Your task to perform on an android device: change your default location settings in chrome Image 0: 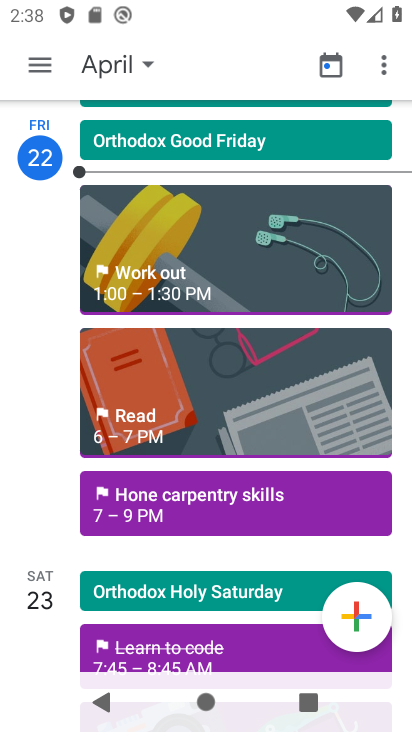
Step 0: press home button
Your task to perform on an android device: change your default location settings in chrome Image 1: 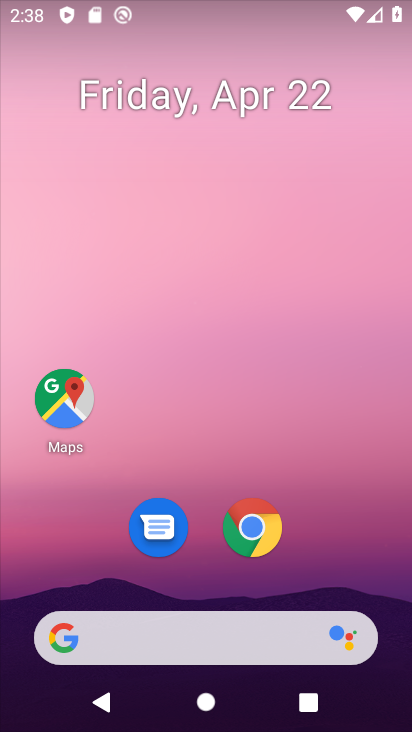
Step 1: drag from (389, 616) to (182, 56)
Your task to perform on an android device: change your default location settings in chrome Image 2: 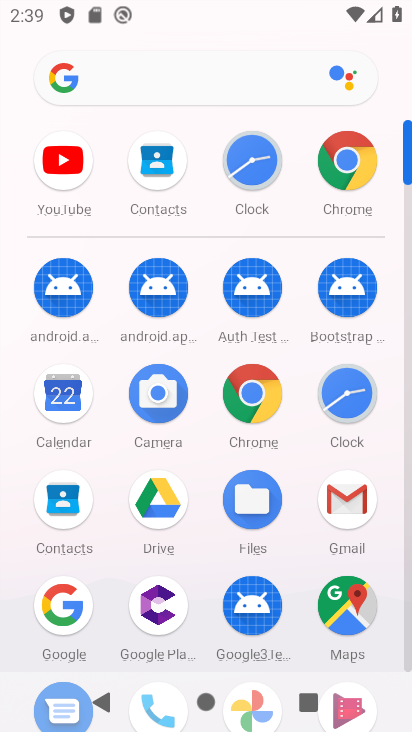
Step 2: click (264, 383)
Your task to perform on an android device: change your default location settings in chrome Image 3: 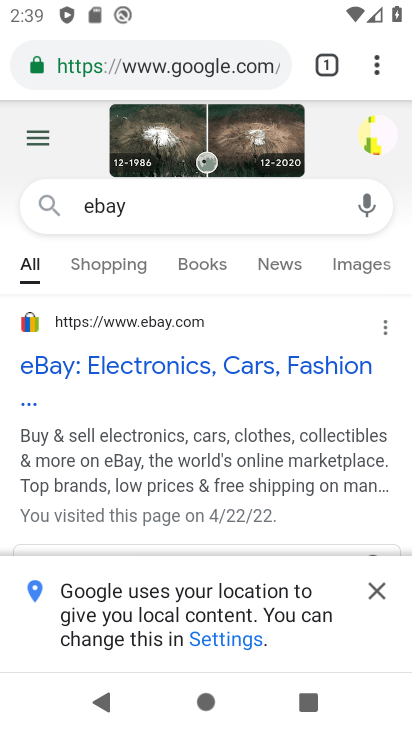
Step 3: press back button
Your task to perform on an android device: change your default location settings in chrome Image 4: 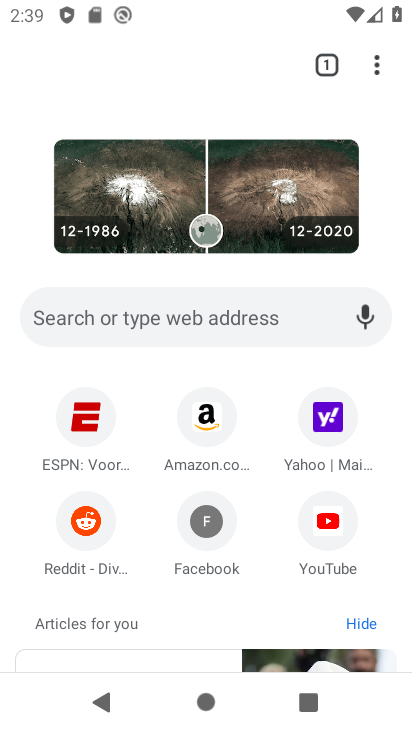
Step 4: click (372, 61)
Your task to perform on an android device: change your default location settings in chrome Image 5: 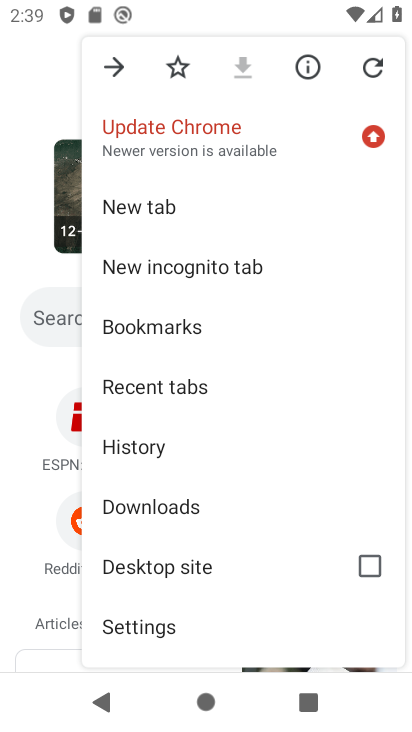
Step 5: click (167, 613)
Your task to perform on an android device: change your default location settings in chrome Image 6: 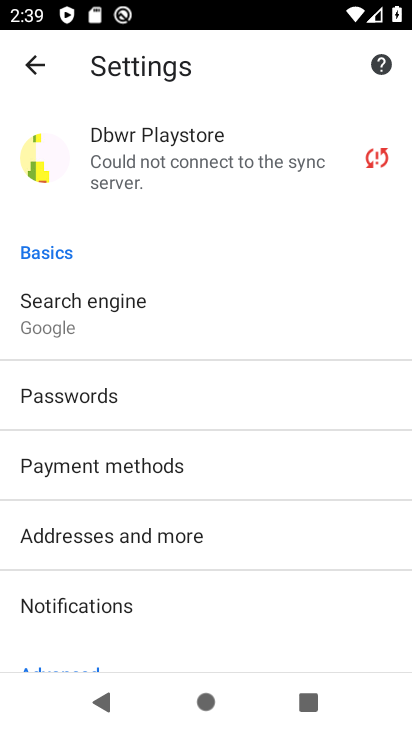
Step 6: click (257, 336)
Your task to perform on an android device: change your default location settings in chrome Image 7: 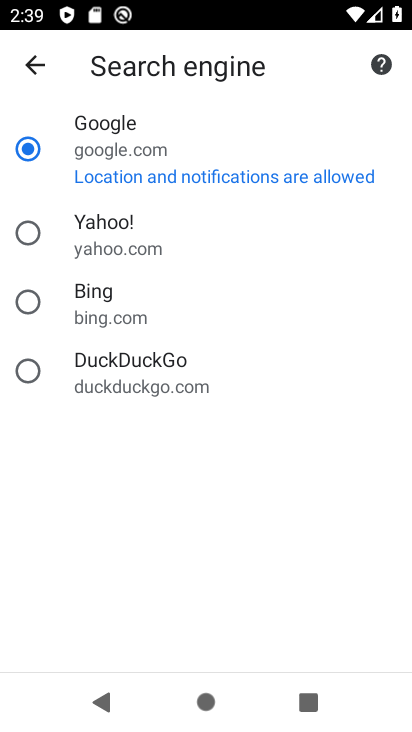
Step 7: click (271, 259)
Your task to perform on an android device: change your default location settings in chrome Image 8: 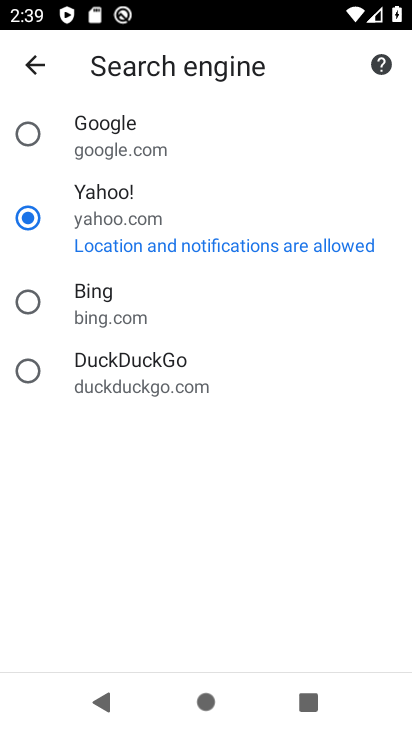
Step 8: task complete